Your task to perform on an android device: change notification settings in the gmail app Image 0: 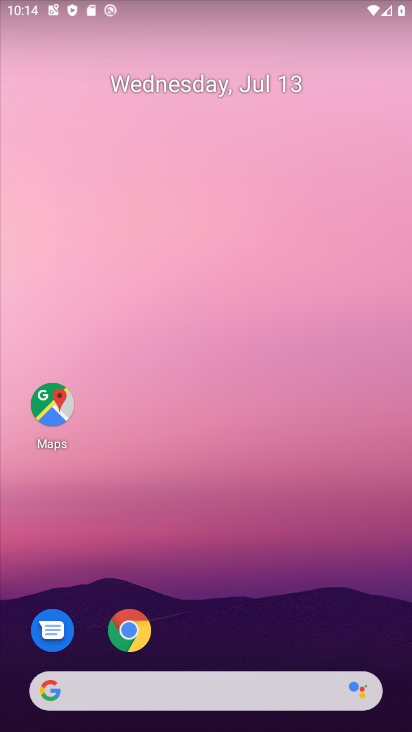
Step 0: drag from (310, 621) to (166, 0)
Your task to perform on an android device: change notification settings in the gmail app Image 1: 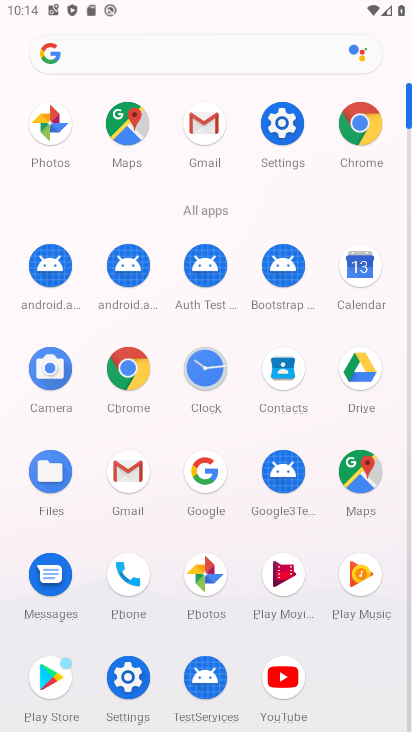
Step 1: click (209, 126)
Your task to perform on an android device: change notification settings in the gmail app Image 2: 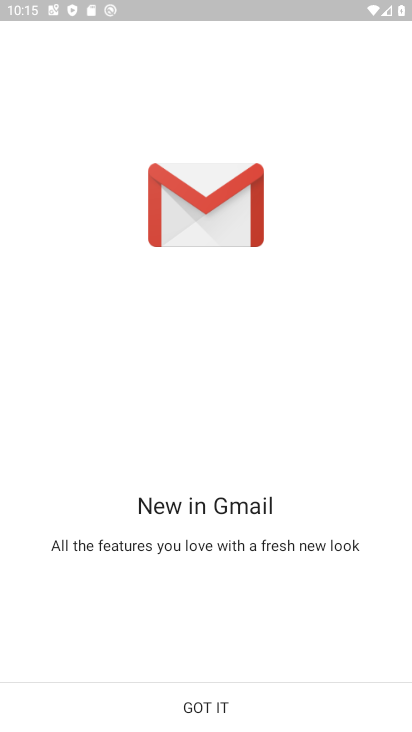
Step 2: click (201, 706)
Your task to perform on an android device: change notification settings in the gmail app Image 3: 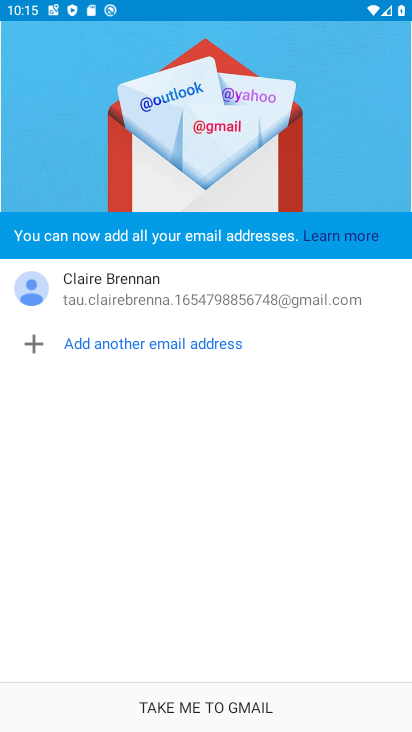
Step 3: click (201, 706)
Your task to perform on an android device: change notification settings in the gmail app Image 4: 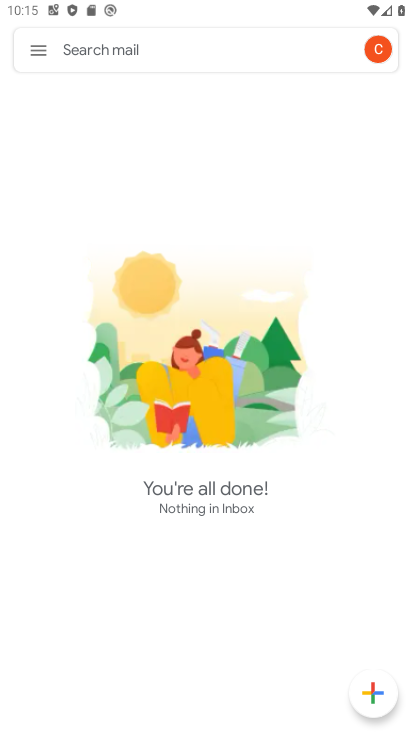
Step 4: click (32, 48)
Your task to perform on an android device: change notification settings in the gmail app Image 5: 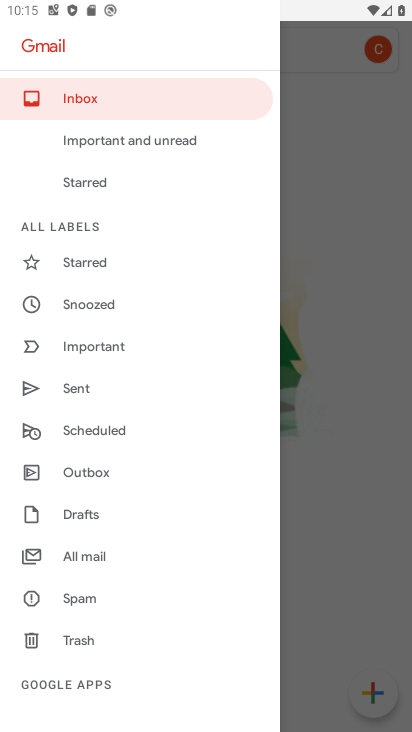
Step 5: drag from (154, 622) to (152, 154)
Your task to perform on an android device: change notification settings in the gmail app Image 6: 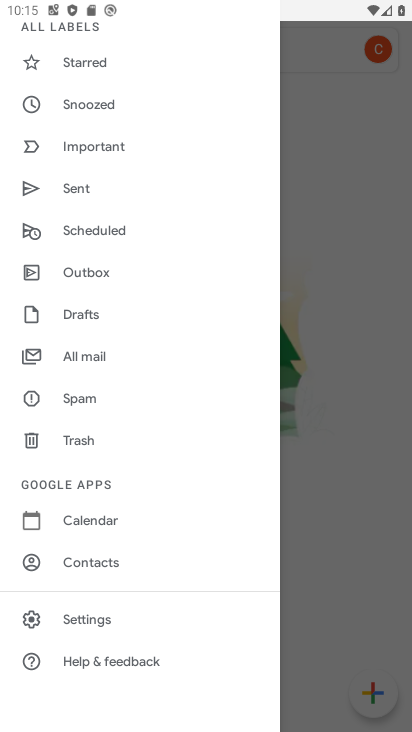
Step 6: click (102, 615)
Your task to perform on an android device: change notification settings in the gmail app Image 7: 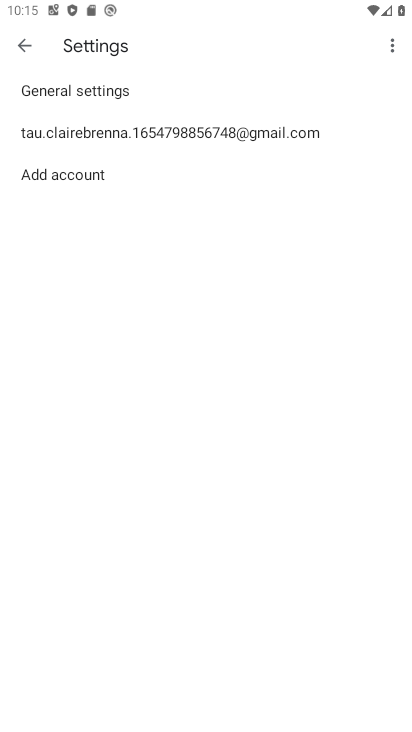
Step 7: click (52, 126)
Your task to perform on an android device: change notification settings in the gmail app Image 8: 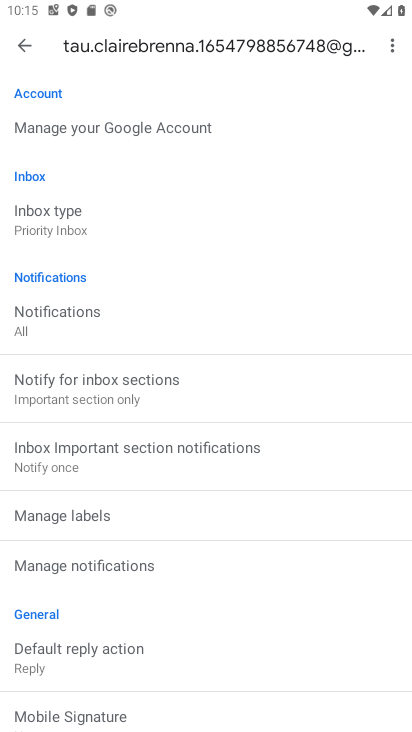
Step 8: click (56, 327)
Your task to perform on an android device: change notification settings in the gmail app Image 9: 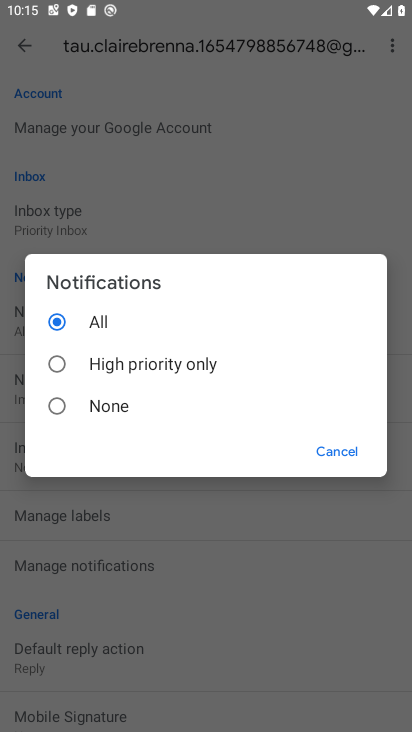
Step 9: click (78, 365)
Your task to perform on an android device: change notification settings in the gmail app Image 10: 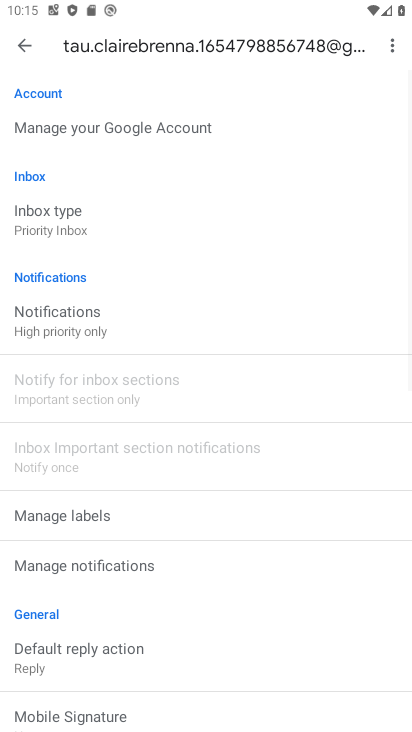
Step 10: task complete